Your task to perform on an android device: add a label to a message in the gmail app Image 0: 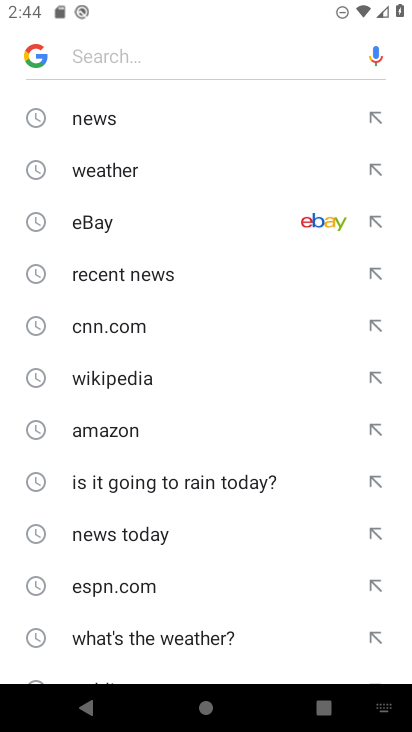
Step 0: press home button
Your task to perform on an android device: add a label to a message in the gmail app Image 1: 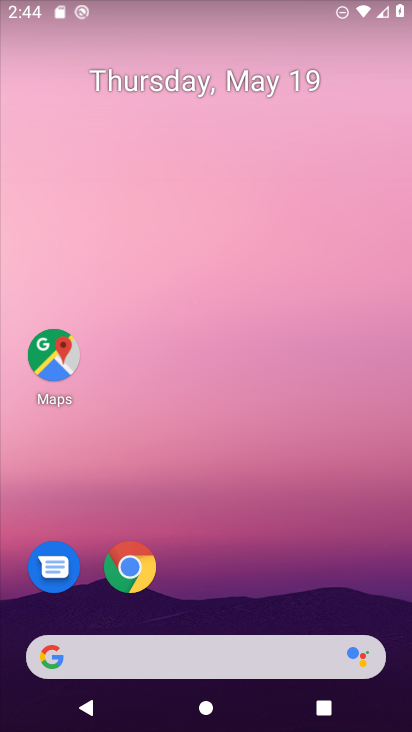
Step 1: drag from (225, 563) to (237, 35)
Your task to perform on an android device: add a label to a message in the gmail app Image 2: 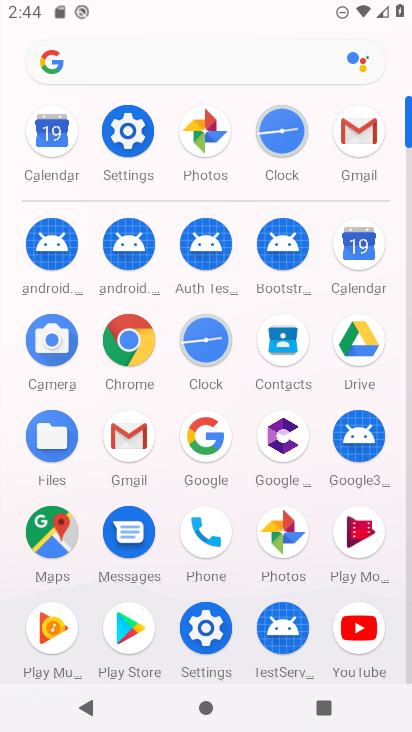
Step 2: click (355, 129)
Your task to perform on an android device: add a label to a message in the gmail app Image 3: 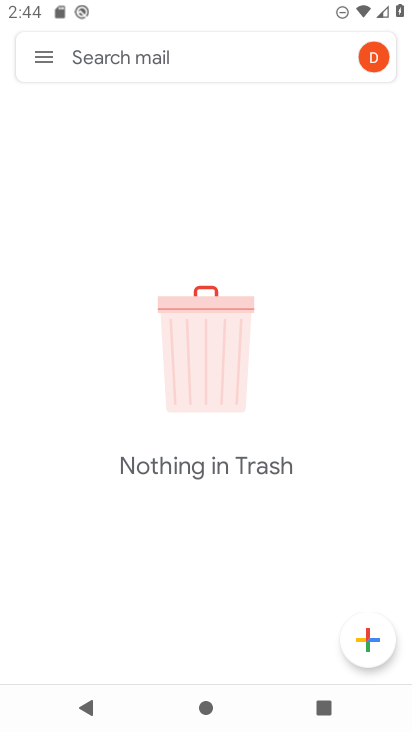
Step 3: click (49, 61)
Your task to perform on an android device: add a label to a message in the gmail app Image 4: 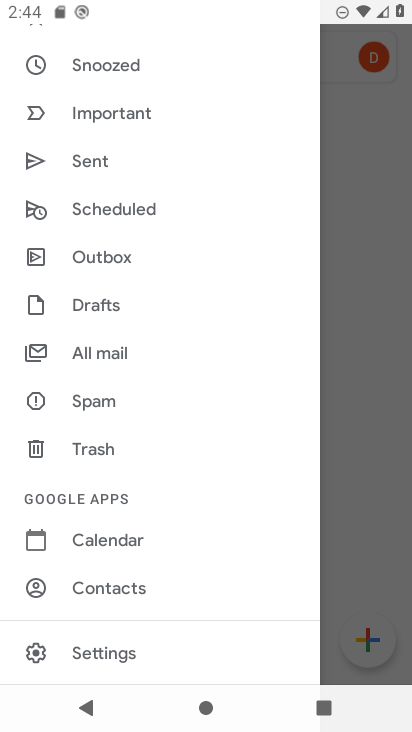
Step 4: click (111, 352)
Your task to perform on an android device: add a label to a message in the gmail app Image 5: 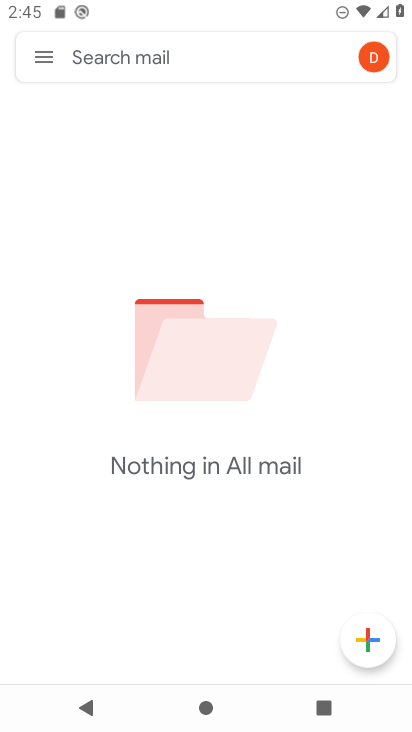
Step 5: task complete